Your task to perform on an android device: Open maps Image 0: 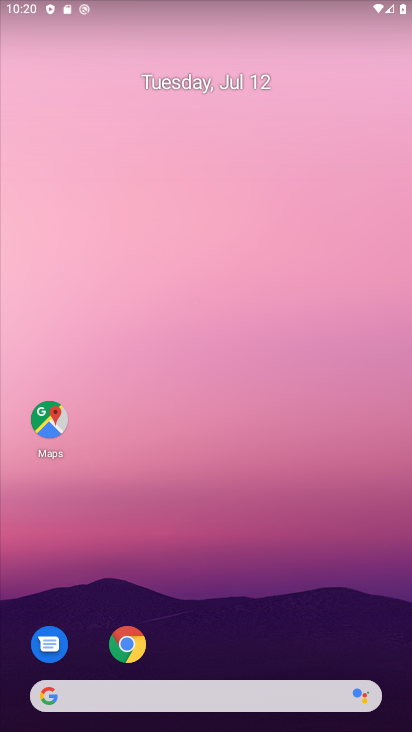
Step 0: click (42, 416)
Your task to perform on an android device: Open maps Image 1: 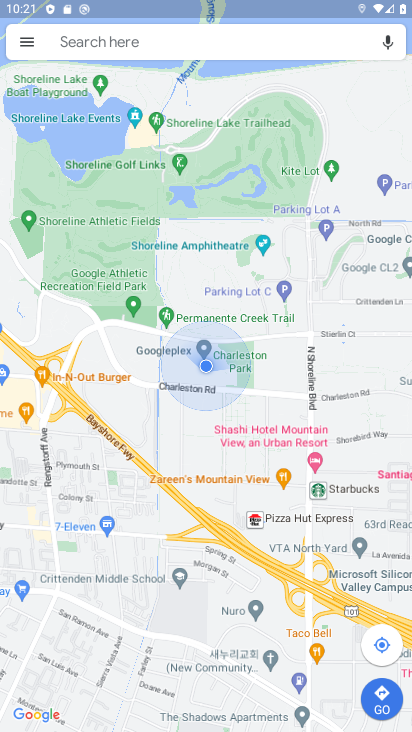
Step 1: task complete